Your task to perform on an android device: Open settings on Google Maps Image 0: 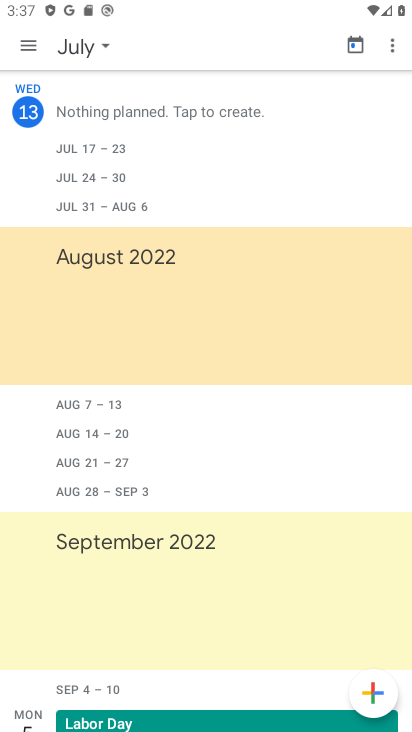
Step 0: press home button
Your task to perform on an android device: Open settings on Google Maps Image 1: 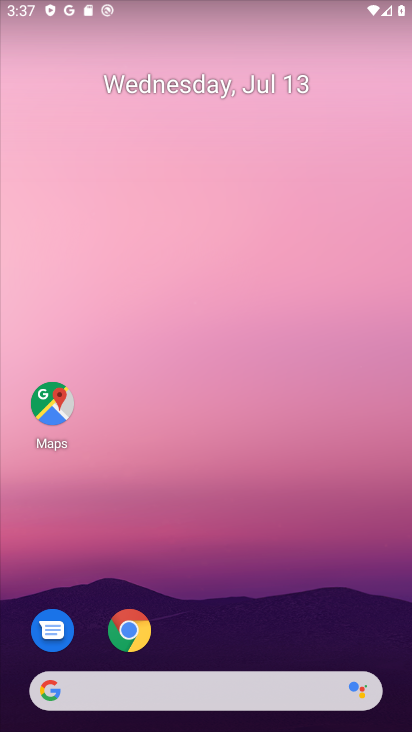
Step 1: drag from (226, 560) to (303, 42)
Your task to perform on an android device: Open settings on Google Maps Image 2: 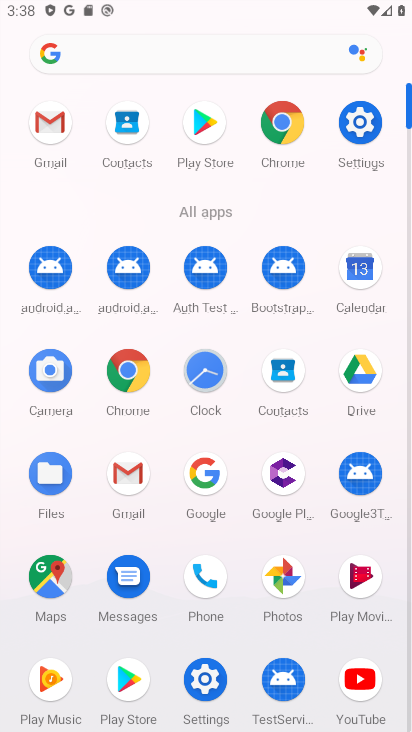
Step 2: click (47, 585)
Your task to perform on an android device: Open settings on Google Maps Image 3: 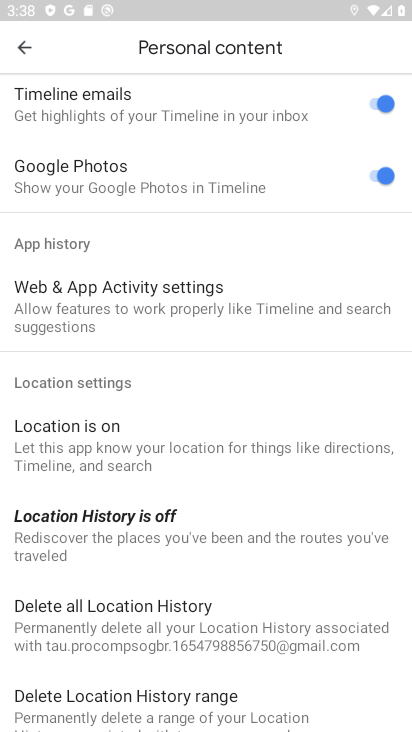
Step 3: click (27, 50)
Your task to perform on an android device: Open settings on Google Maps Image 4: 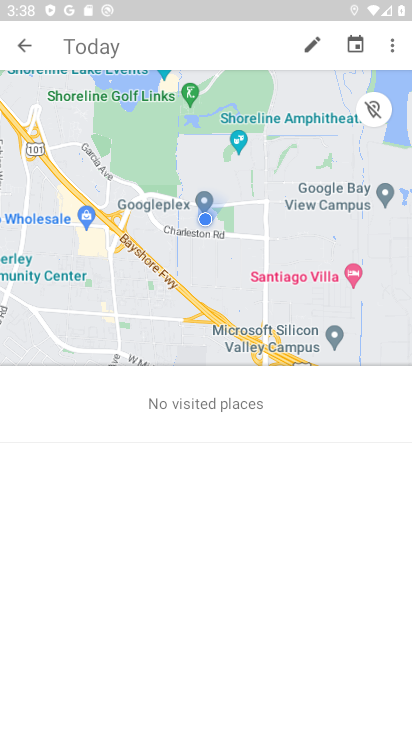
Step 4: click (28, 40)
Your task to perform on an android device: Open settings on Google Maps Image 5: 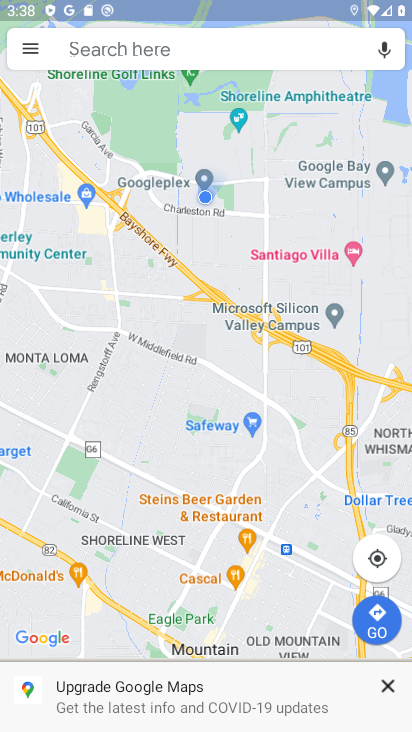
Step 5: click (23, 42)
Your task to perform on an android device: Open settings on Google Maps Image 6: 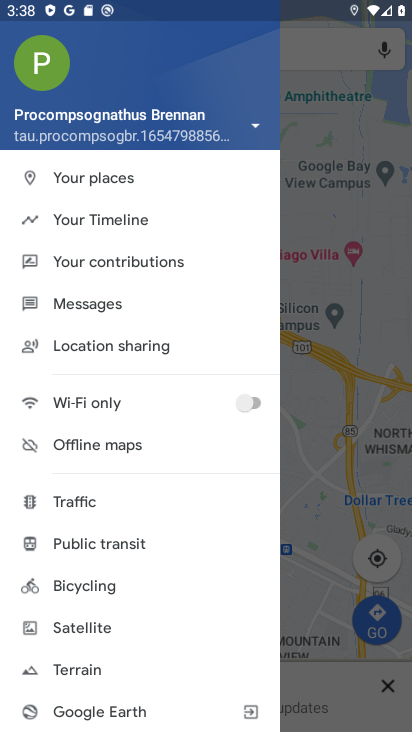
Step 6: drag from (114, 619) to (134, 353)
Your task to perform on an android device: Open settings on Google Maps Image 7: 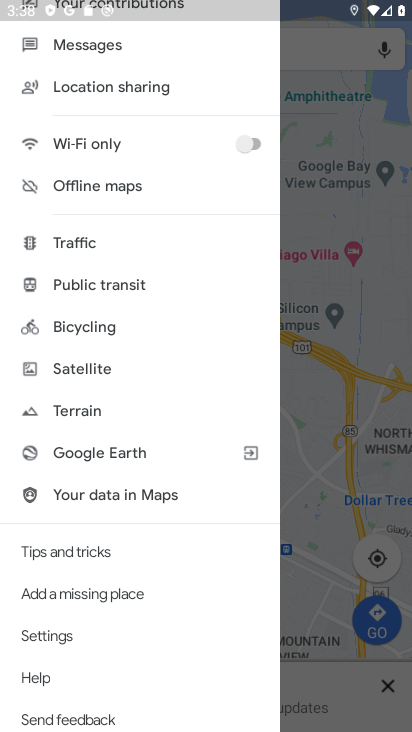
Step 7: click (48, 638)
Your task to perform on an android device: Open settings on Google Maps Image 8: 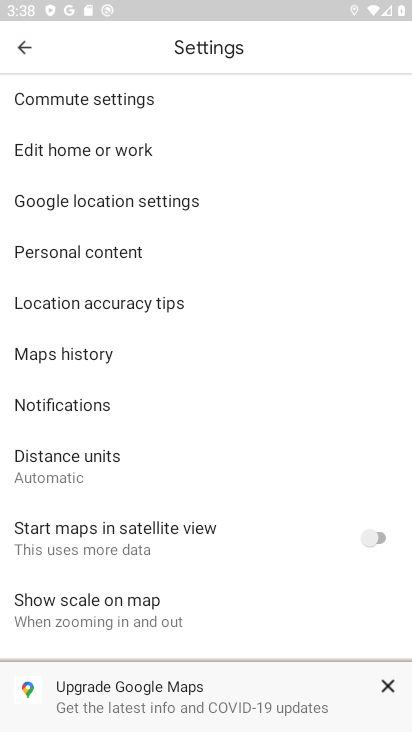
Step 8: task complete